Your task to perform on an android device: delete a single message in the gmail app Image 0: 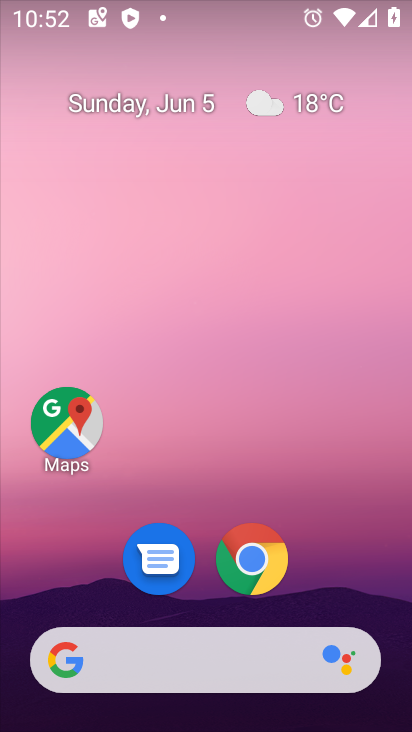
Step 0: drag from (385, 696) to (330, 213)
Your task to perform on an android device: delete a single message in the gmail app Image 1: 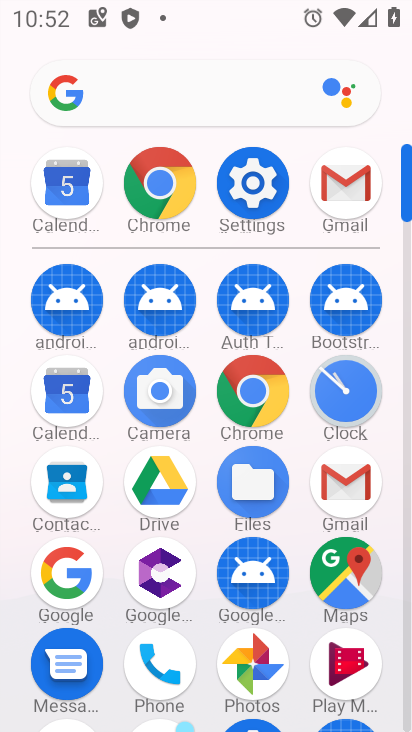
Step 1: click (356, 193)
Your task to perform on an android device: delete a single message in the gmail app Image 2: 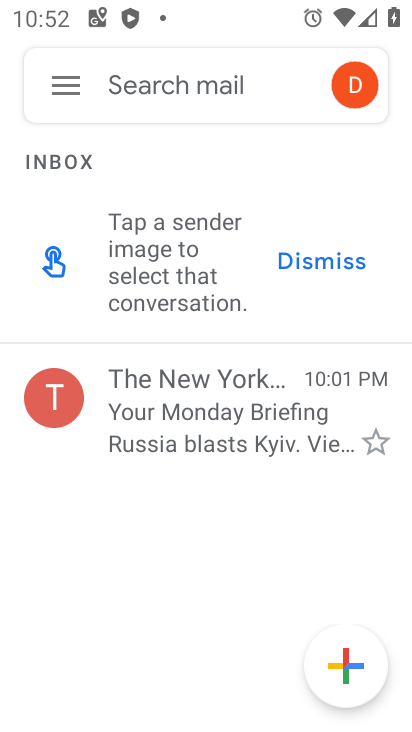
Step 2: click (66, 96)
Your task to perform on an android device: delete a single message in the gmail app Image 3: 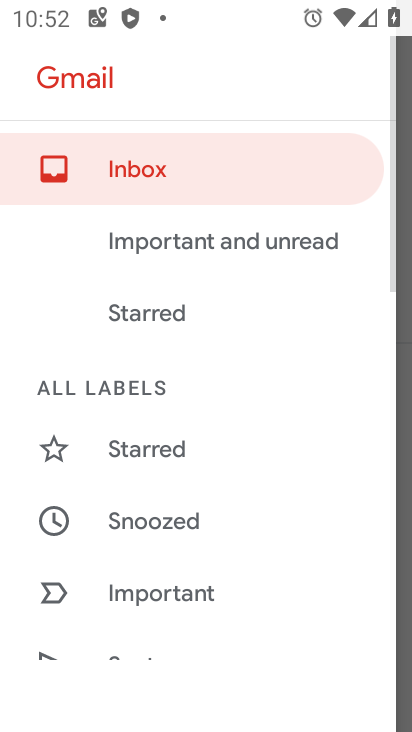
Step 3: click (173, 179)
Your task to perform on an android device: delete a single message in the gmail app Image 4: 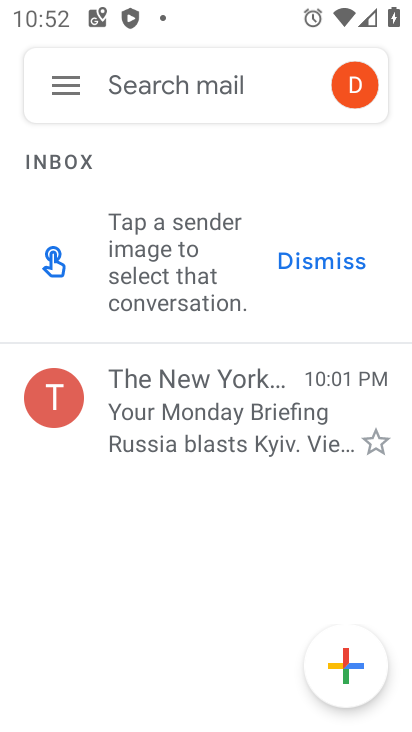
Step 4: click (256, 389)
Your task to perform on an android device: delete a single message in the gmail app Image 5: 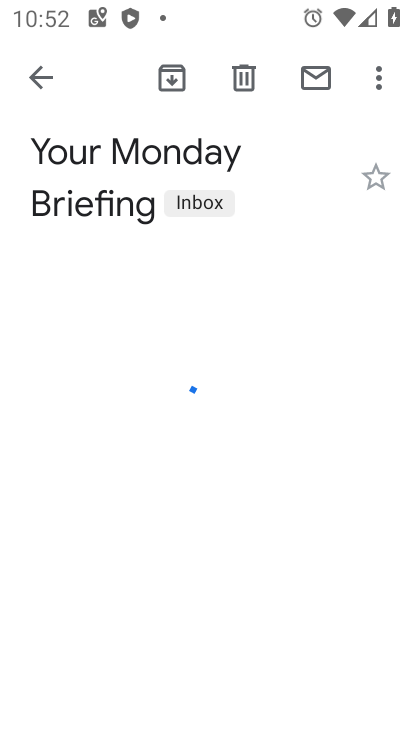
Step 5: click (240, 81)
Your task to perform on an android device: delete a single message in the gmail app Image 6: 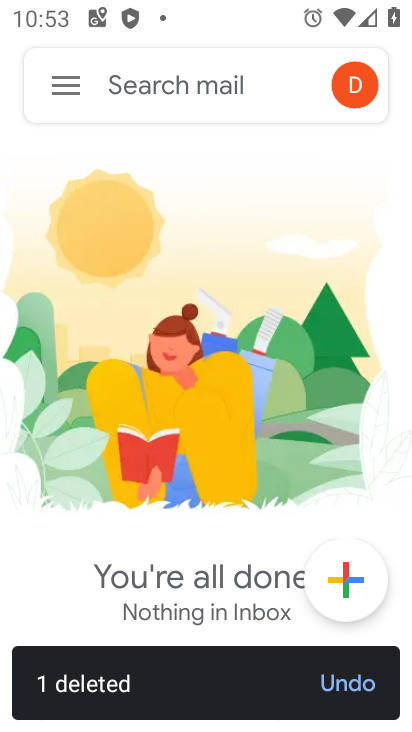
Step 6: task complete